Your task to perform on an android device: What's the weather going to be this weekend? Image 0: 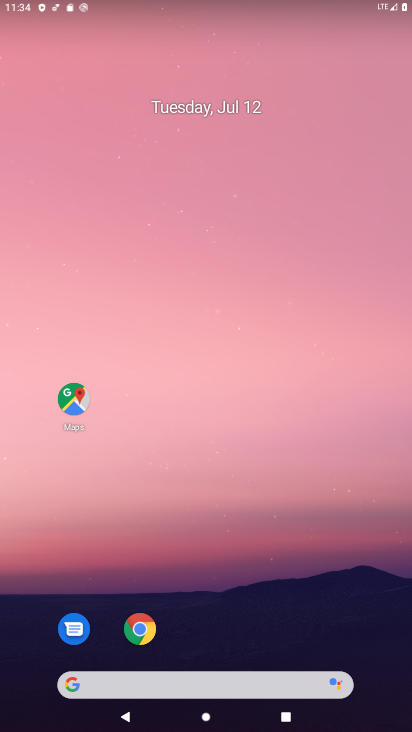
Step 0: click (158, 683)
Your task to perform on an android device: What's the weather going to be this weekend? Image 1: 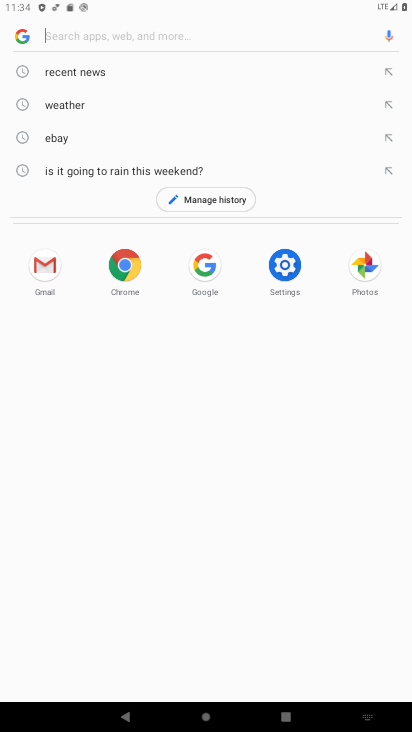
Step 1: type "weather for weekend "
Your task to perform on an android device: What's the weather going to be this weekend? Image 2: 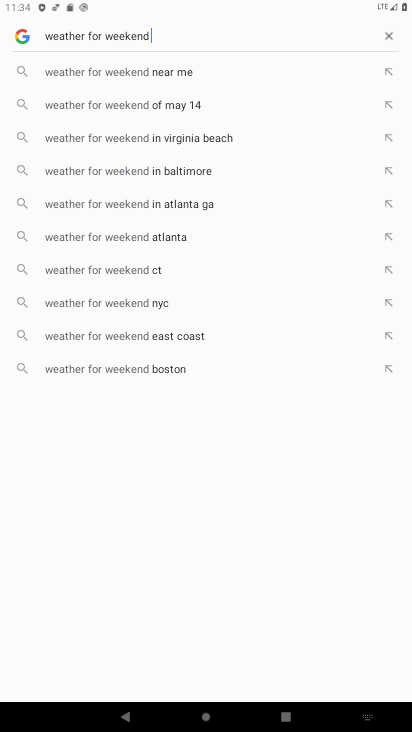
Step 2: click (167, 75)
Your task to perform on an android device: What's the weather going to be this weekend? Image 3: 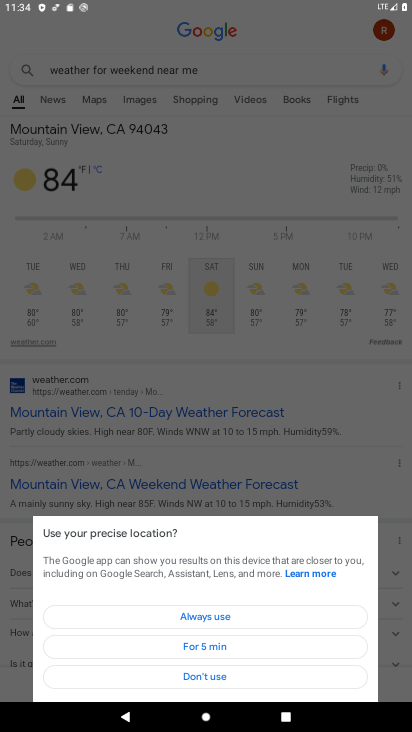
Step 3: task complete